Your task to perform on an android device: check battery use Image 0: 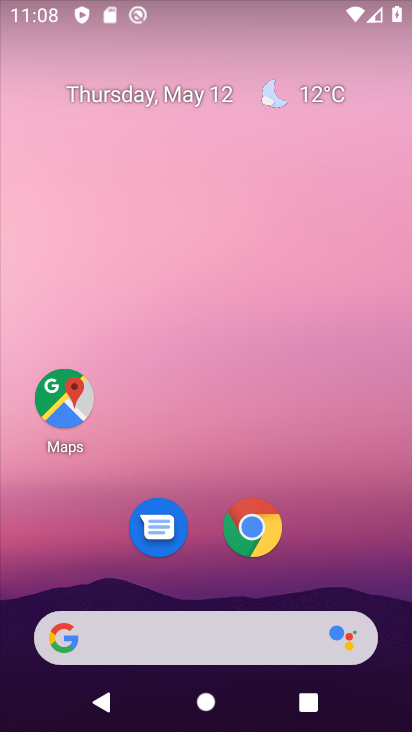
Step 0: drag from (40, 676) to (238, 288)
Your task to perform on an android device: check battery use Image 1: 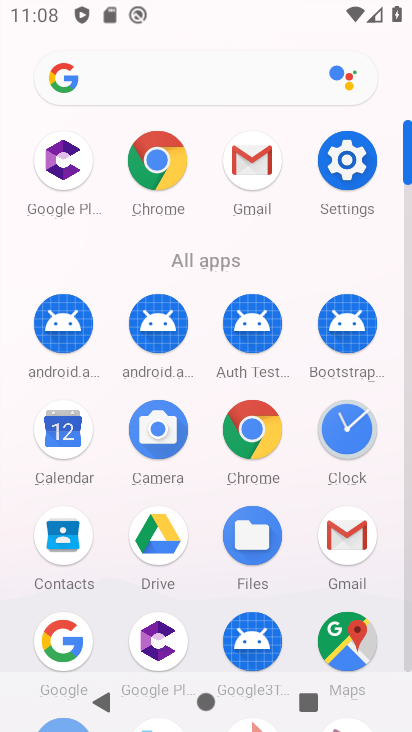
Step 1: click (358, 163)
Your task to perform on an android device: check battery use Image 2: 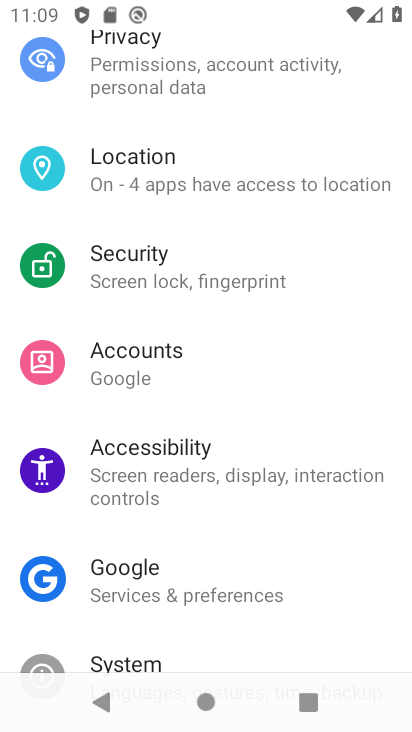
Step 2: drag from (181, 110) to (144, 515)
Your task to perform on an android device: check battery use Image 3: 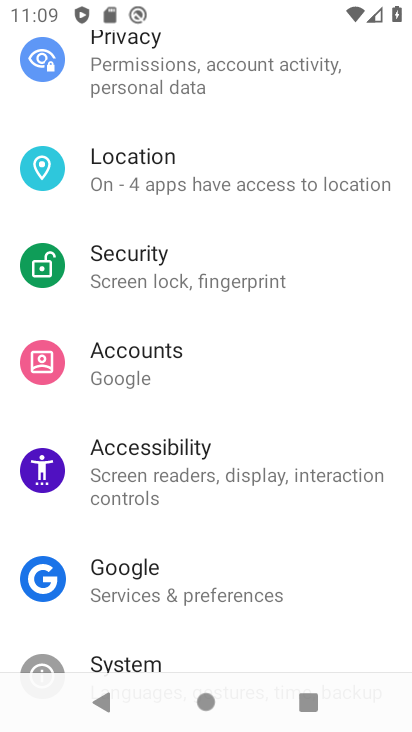
Step 3: drag from (183, 115) to (139, 586)
Your task to perform on an android device: check battery use Image 4: 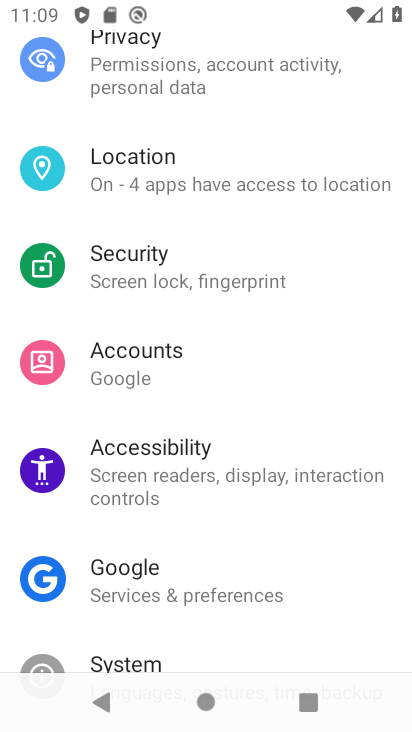
Step 4: drag from (186, 125) to (130, 623)
Your task to perform on an android device: check battery use Image 5: 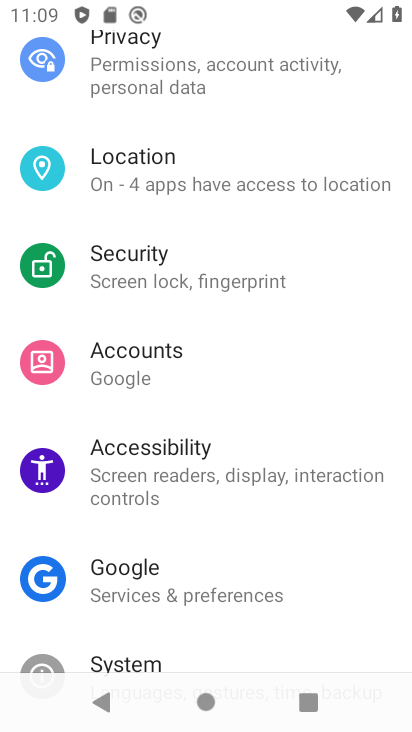
Step 5: drag from (182, 131) to (191, 644)
Your task to perform on an android device: check battery use Image 6: 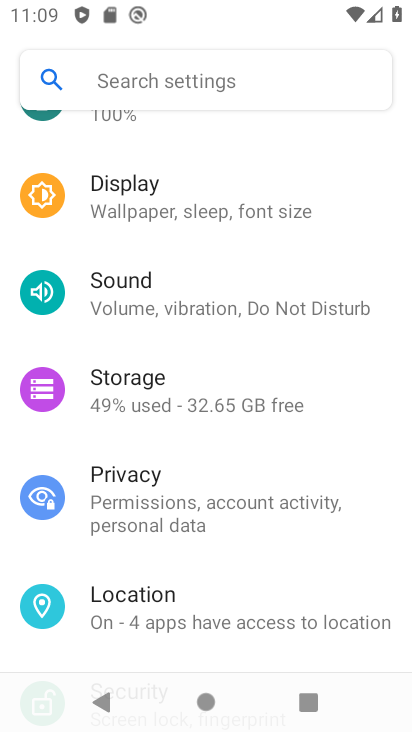
Step 6: drag from (162, 182) to (120, 630)
Your task to perform on an android device: check battery use Image 7: 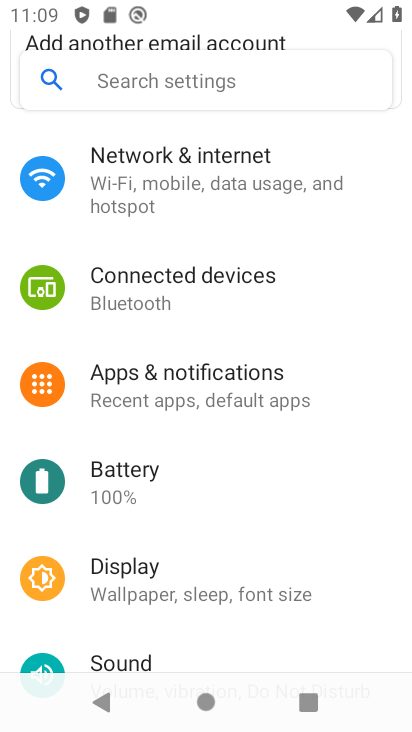
Step 7: click (127, 467)
Your task to perform on an android device: check battery use Image 8: 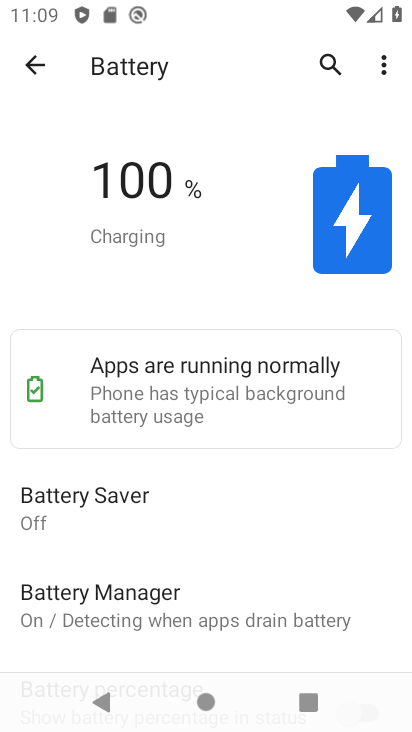
Step 8: task complete